Your task to perform on an android device: change text size in settings app Image 0: 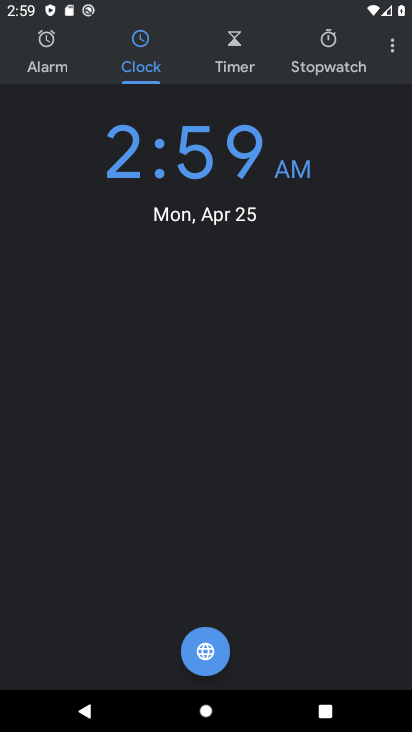
Step 0: press back button
Your task to perform on an android device: change text size in settings app Image 1: 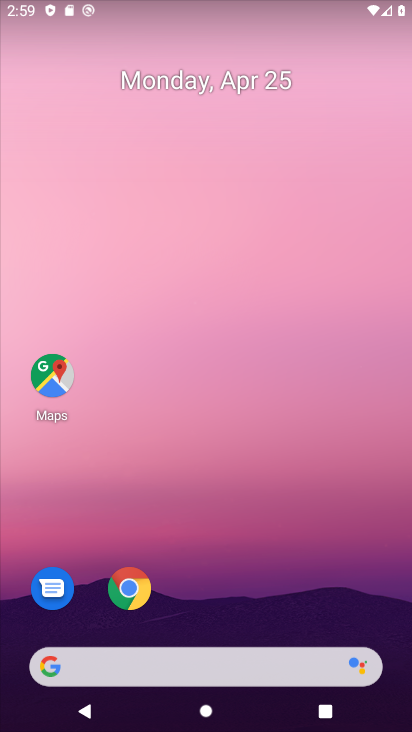
Step 1: drag from (243, 568) to (312, 117)
Your task to perform on an android device: change text size in settings app Image 2: 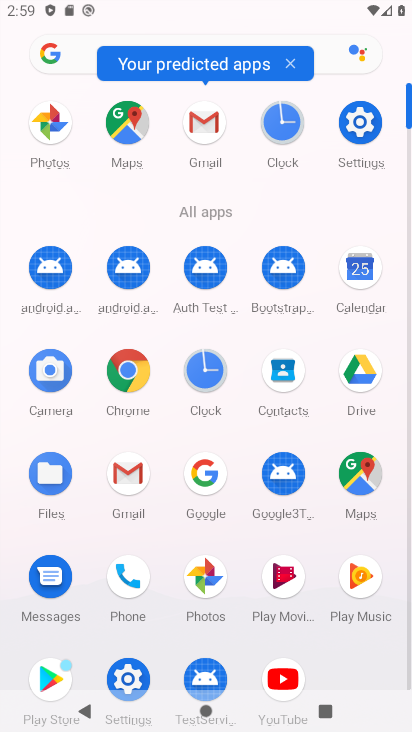
Step 2: click (125, 666)
Your task to perform on an android device: change text size in settings app Image 3: 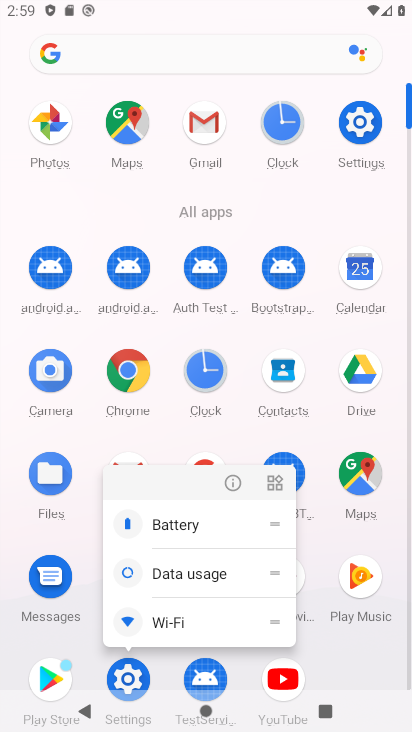
Step 3: click (139, 670)
Your task to perform on an android device: change text size in settings app Image 4: 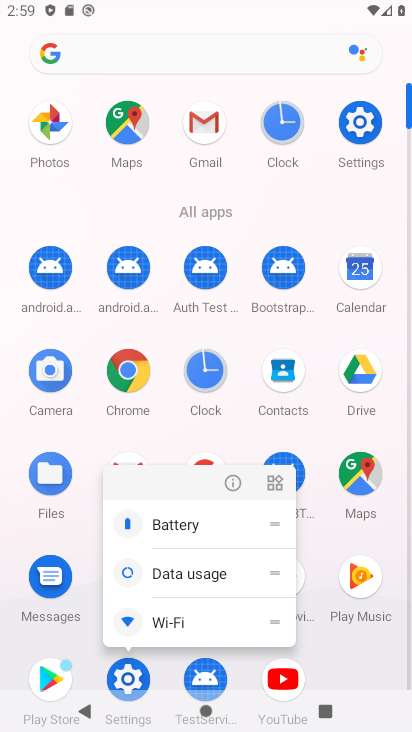
Step 4: click (136, 686)
Your task to perform on an android device: change text size in settings app Image 5: 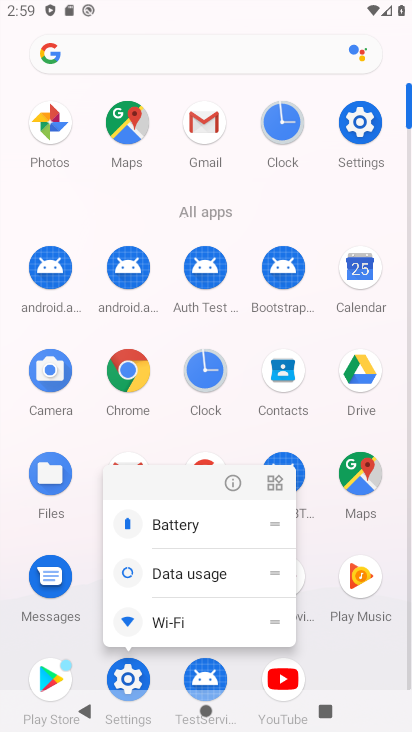
Step 5: click (127, 671)
Your task to perform on an android device: change text size in settings app Image 6: 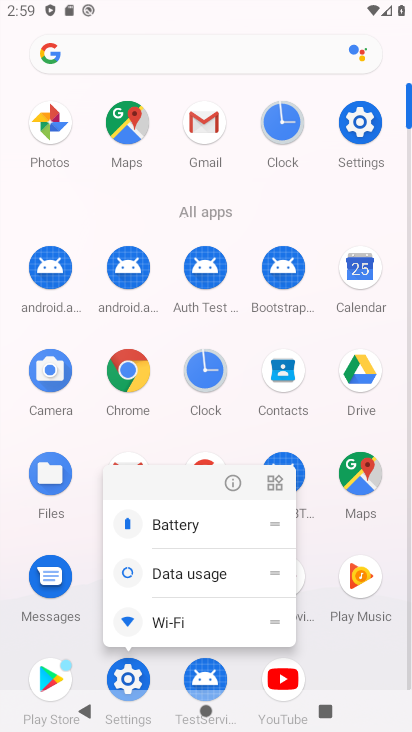
Step 6: click (127, 685)
Your task to perform on an android device: change text size in settings app Image 7: 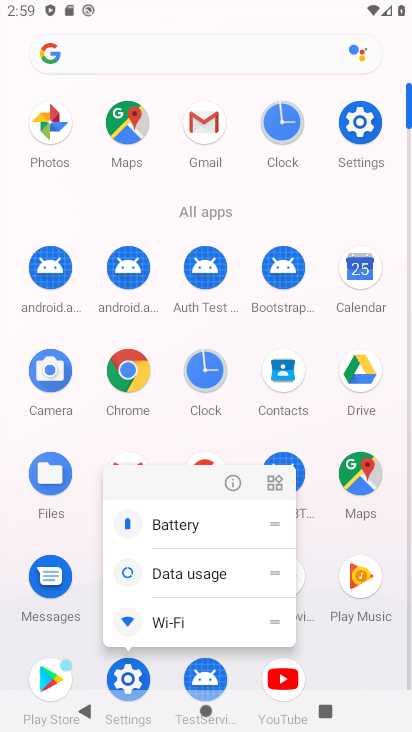
Step 7: click (127, 685)
Your task to perform on an android device: change text size in settings app Image 8: 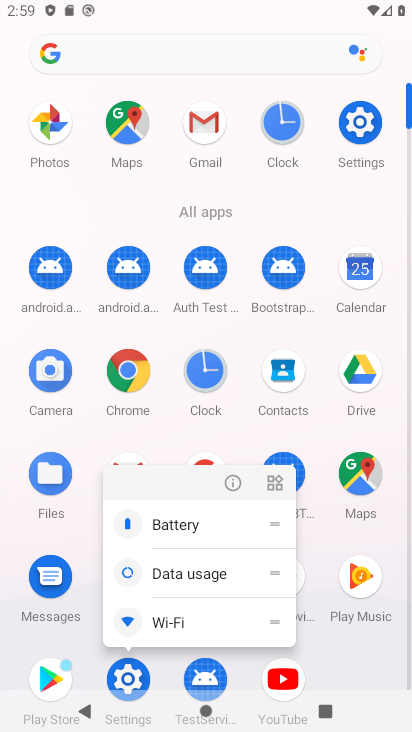
Step 8: click (126, 685)
Your task to perform on an android device: change text size in settings app Image 9: 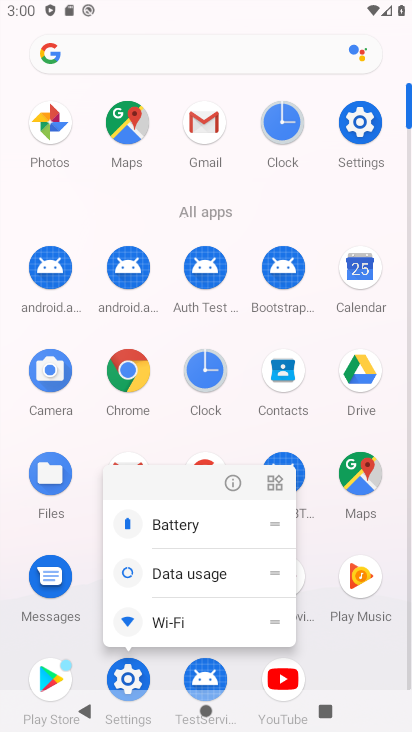
Step 9: click (125, 683)
Your task to perform on an android device: change text size in settings app Image 10: 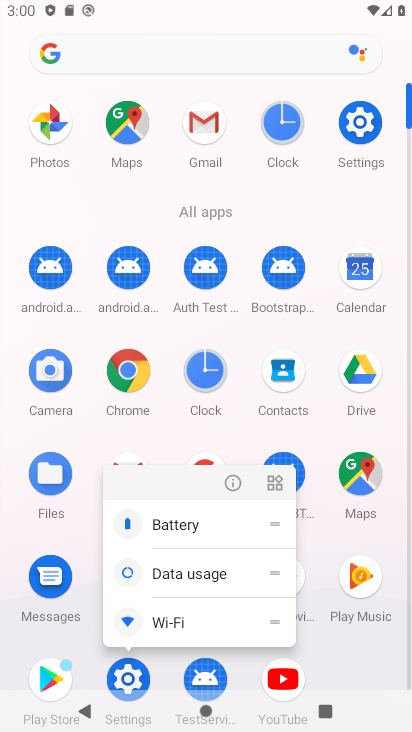
Step 10: click (125, 683)
Your task to perform on an android device: change text size in settings app Image 11: 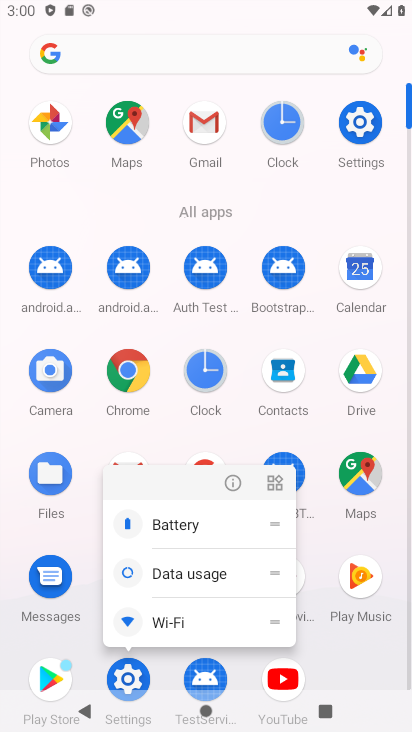
Step 11: click (132, 686)
Your task to perform on an android device: change text size in settings app Image 12: 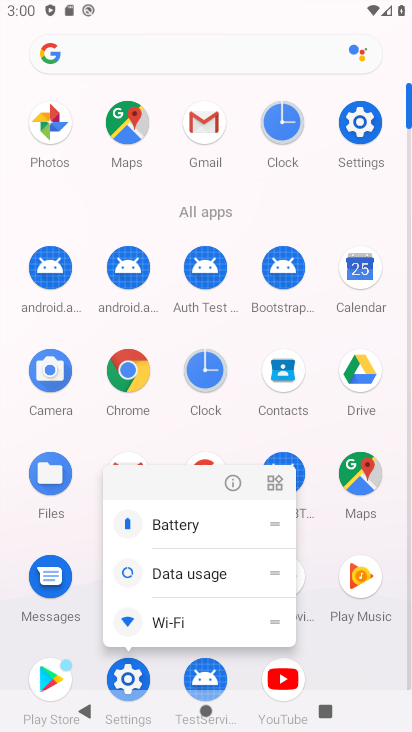
Step 12: click (132, 679)
Your task to perform on an android device: change text size in settings app Image 13: 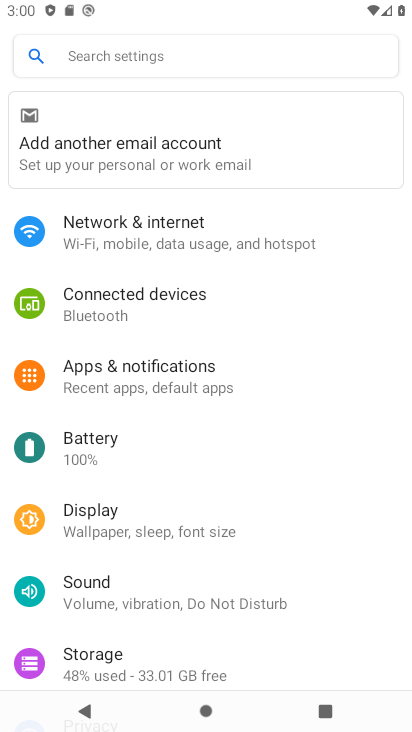
Step 13: click (191, 538)
Your task to perform on an android device: change text size in settings app Image 14: 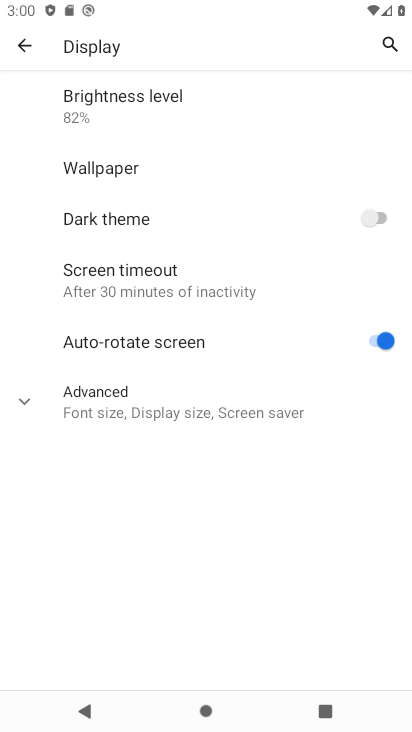
Step 14: click (260, 418)
Your task to perform on an android device: change text size in settings app Image 15: 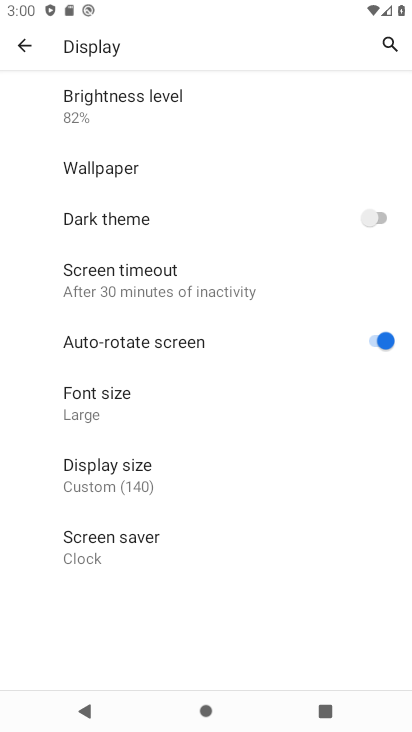
Step 15: click (215, 412)
Your task to perform on an android device: change text size in settings app Image 16: 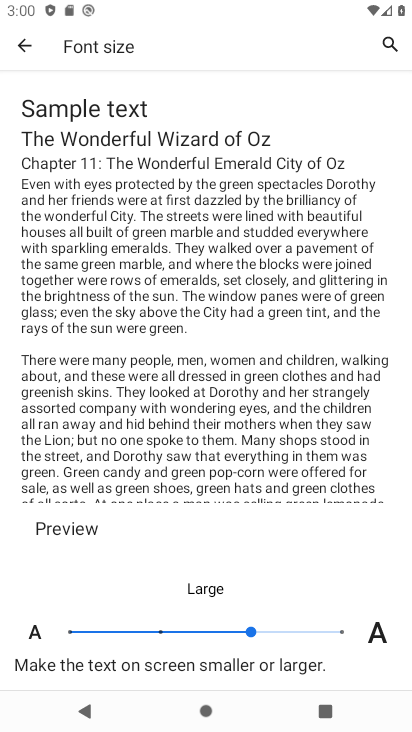
Step 16: click (159, 632)
Your task to perform on an android device: change text size in settings app Image 17: 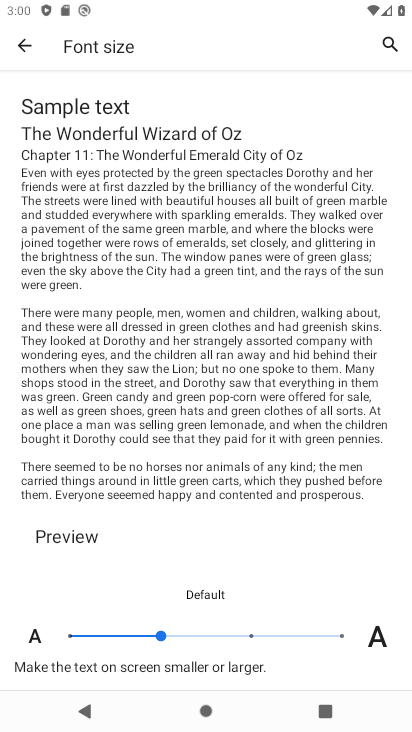
Step 17: task complete